Your task to perform on an android device: turn off priority inbox in the gmail app Image 0: 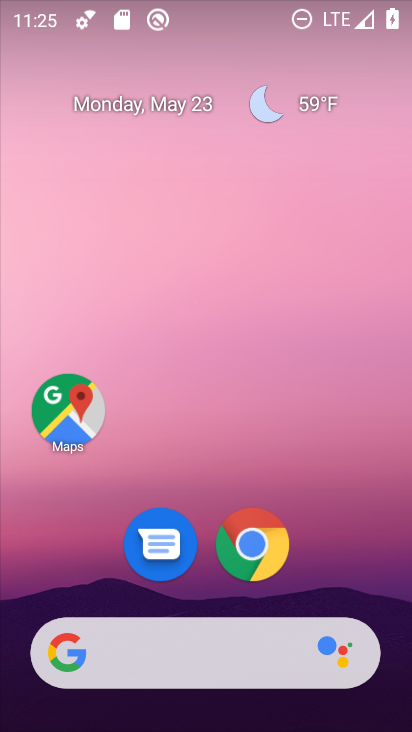
Step 0: drag from (389, 601) to (367, 84)
Your task to perform on an android device: turn off priority inbox in the gmail app Image 1: 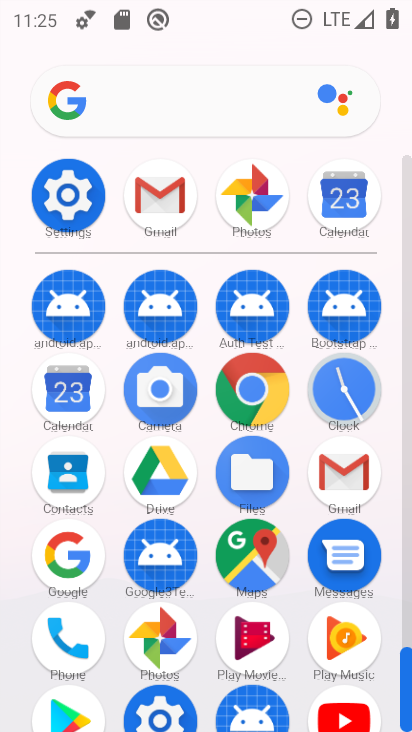
Step 1: click (339, 473)
Your task to perform on an android device: turn off priority inbox in the gmail app Image 2: 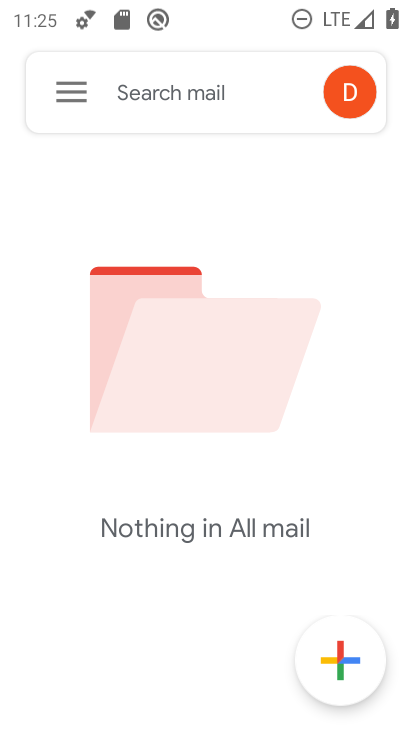
Step 2: click (76, 95)
Your task to perform on an android device: turn off priority inbox in the gmail app Image 3: 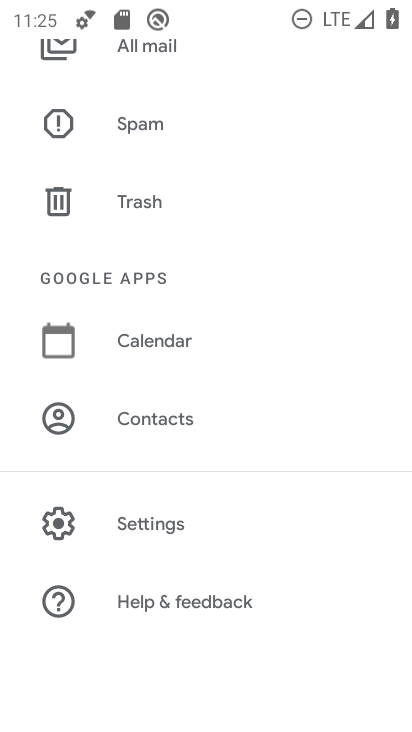
Step 3: click (165, 527)
Your task to perform on an android device: turn off priority inbox in the gmail app Image 4: 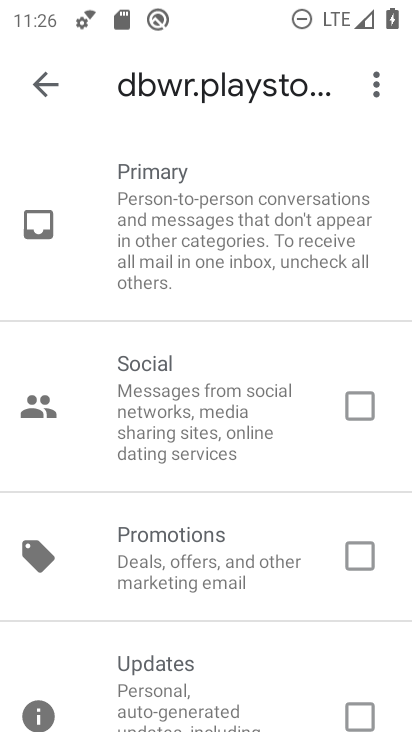
Step 4: press back button
Your task to perform on an android device: turn off priority inbox in the gmail app Image 5: 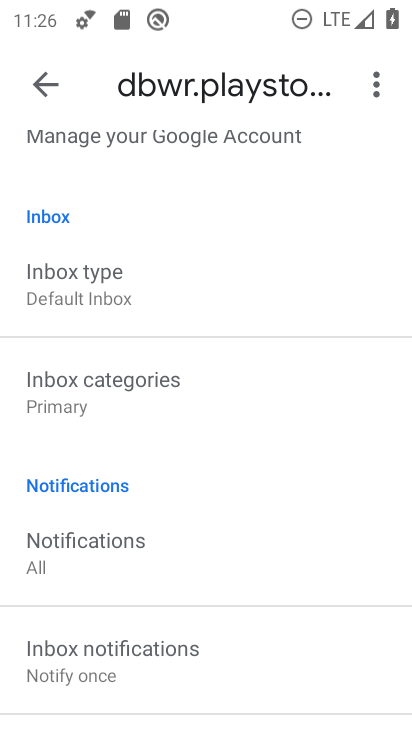
Step 5: click (83, 289)
Your task to perform on an android device: turn off priority inbox in the gmail app Image 6: 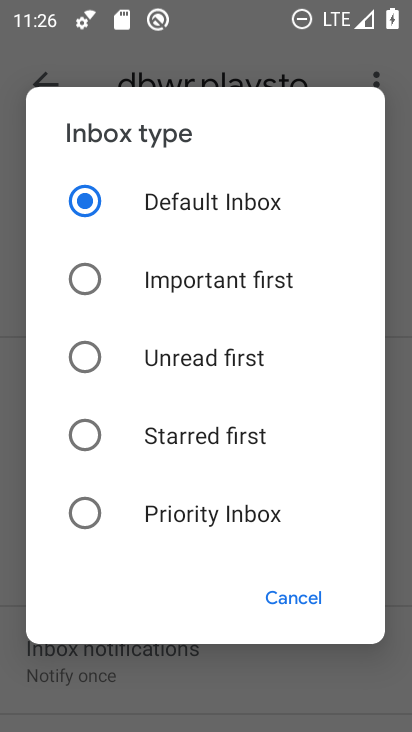
Step 6: task complete